Your task to perform on an android device: change notification settings in the gmail app Image 0: 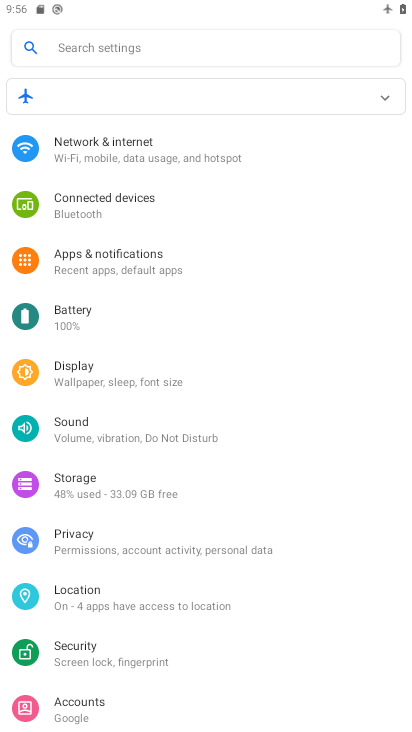
Step 0: press home button
Your task to perform on an android device: change notification settings in the gmail app Image 1: 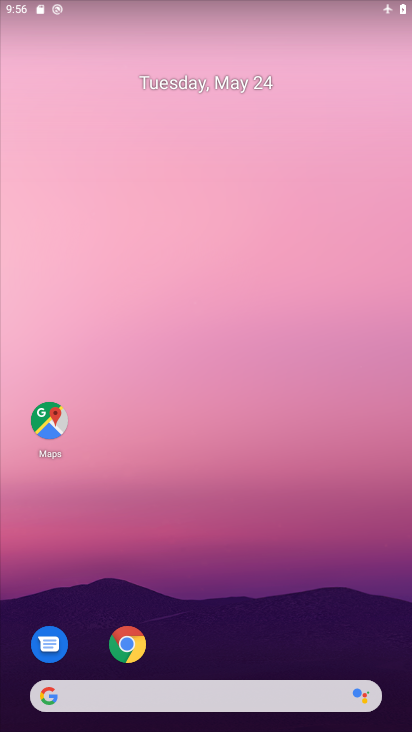
Step 1: drag from (247, 556) to (147, 46)
Your task to perform on an android device: change notification settings in the gmail app Image 2: 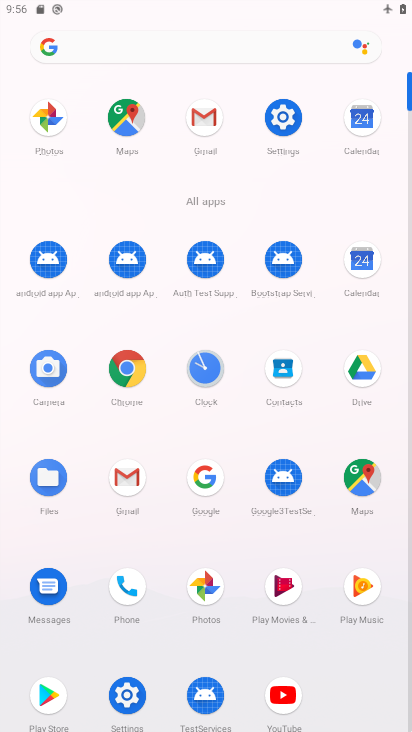
Step 2: click (202, 107)
Your task to perform on an android device: change notification settings in the gmail app Image 3: 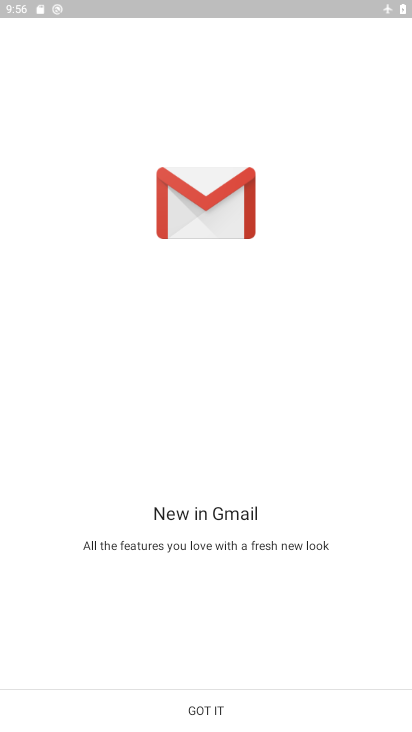
Step 3: click (199, 704)
Your task to perform on an android device: change notification settings in the gmail app Image 4: 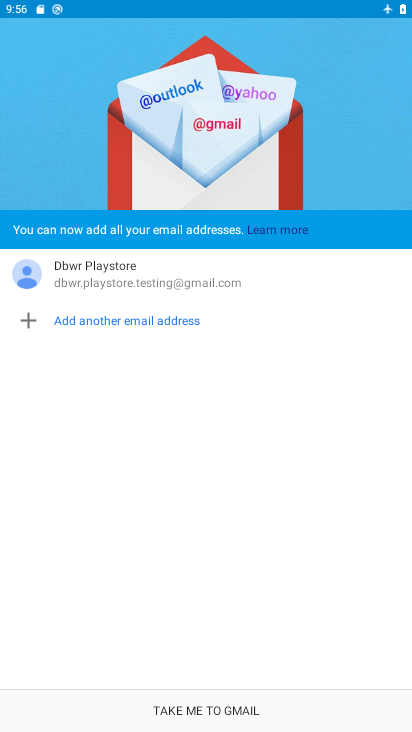
Step 4: click (199, 704)
Your task to perform on an android device: change notification settings in the gmail app Image 5: 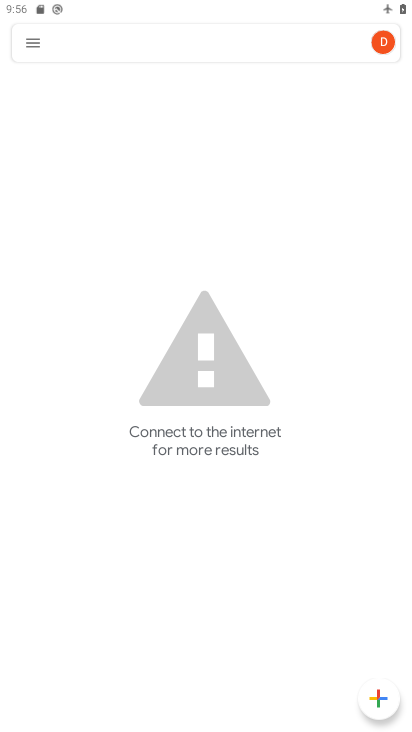
Step 5: click (28, 24)
Your task to perform on an android device: change notification settings in the gmail app Image 6: 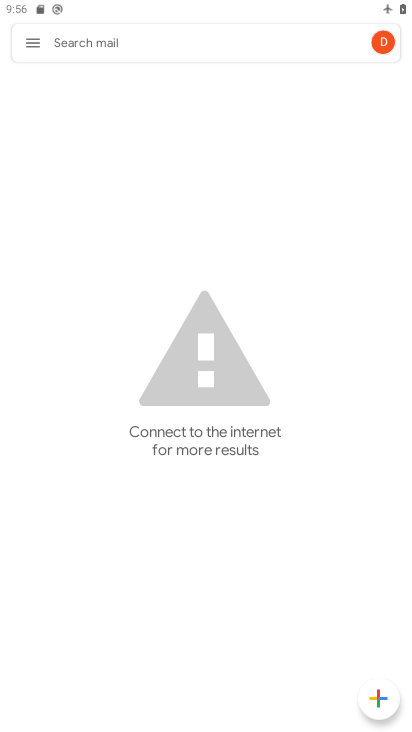
Step 6: click (30, 44)
Your task to perform on an android device: change notification settings in the gmail app Image 7: 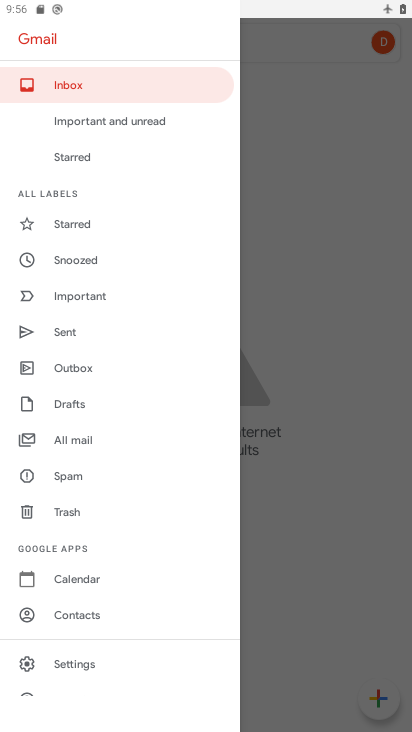
Step 7: click (76, 663)
Your task to perform on an android device: change notification settings in the gmail app Image 8: 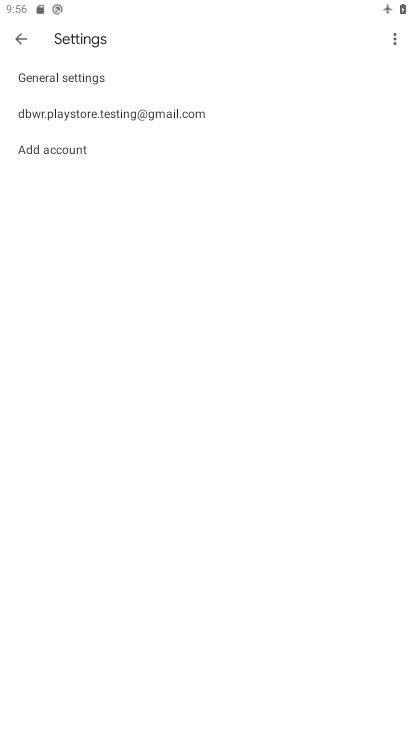
Step 8: click (60, 78)
Your task to perform on an android device: change notification settings in the gmail app Image 9: 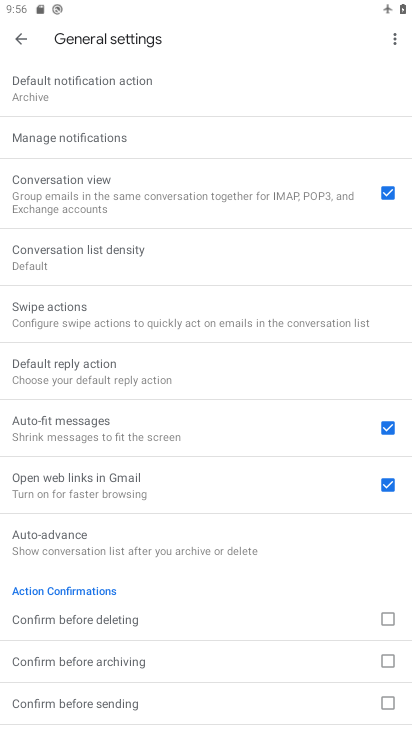
Step 9: click (91, 130)
Your task to perform on an android device: change notification settings in the gmail app Image 10: 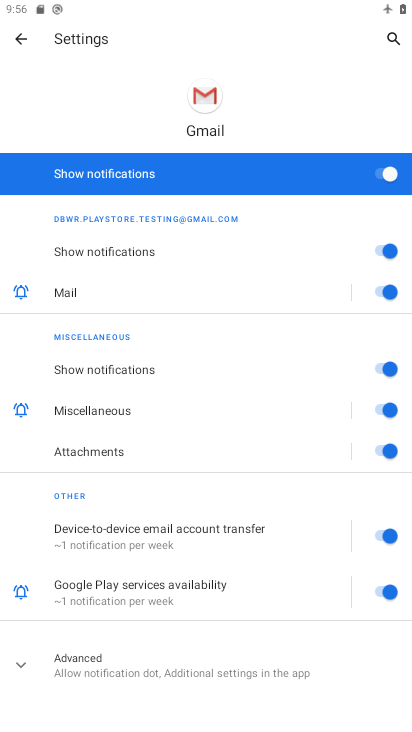
Step 10: click (388, 187)
Your task to perform on an android device: change notification settings in the gmail app Image 11: 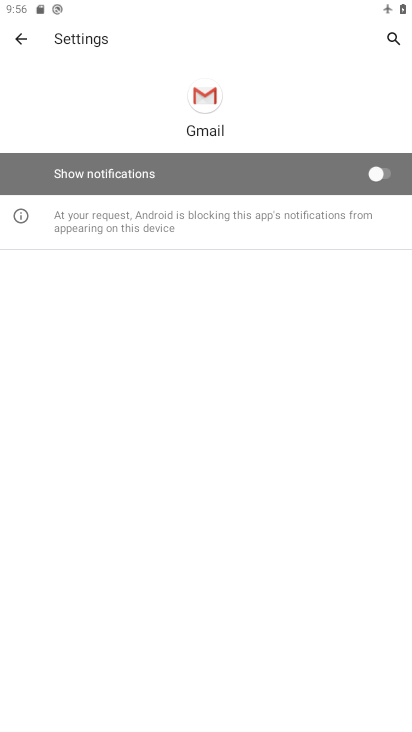
Step 11: task complete